Your task to perform on an android device: What's on my calendar tomorrow? Image 0: 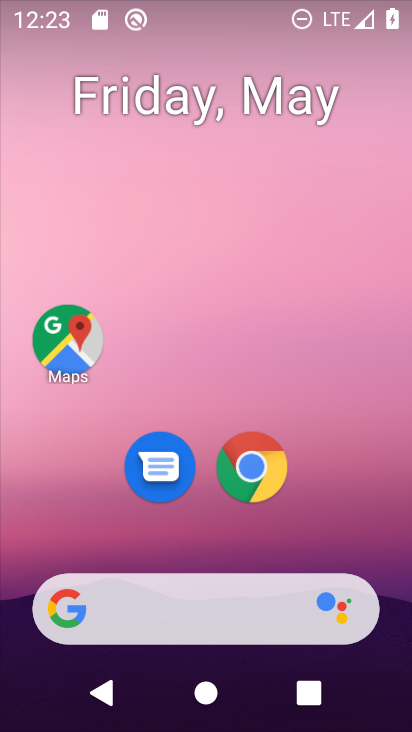
Step 0: drag from (183, 595) to (228, 0)
Your task to perform on an android device: What's on my calendar tomorrow? Image 1: 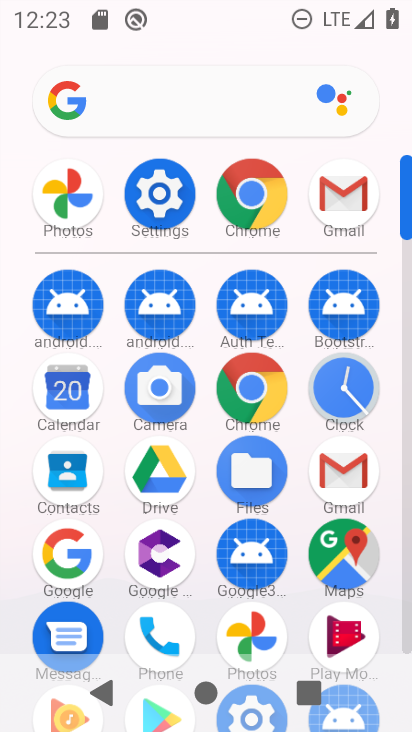
Step 1: click (70, 407)
Your task to perform on an android device: What's on my calendar tomorrow? Image 2: 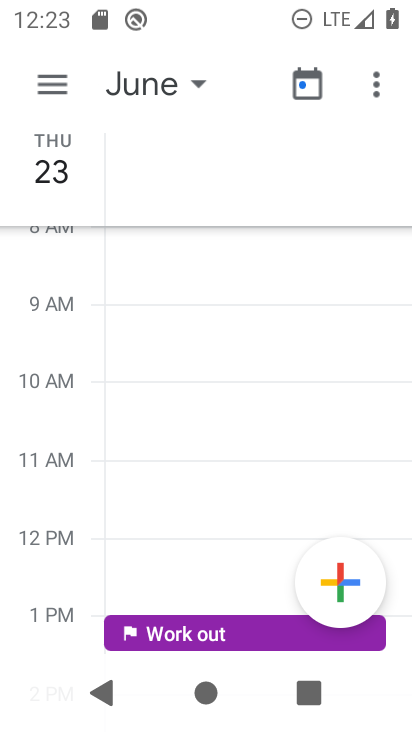
Step 2: click (76, 386)
Your task to perform on an android device: What's on my calendar tomorrow? Image 3: 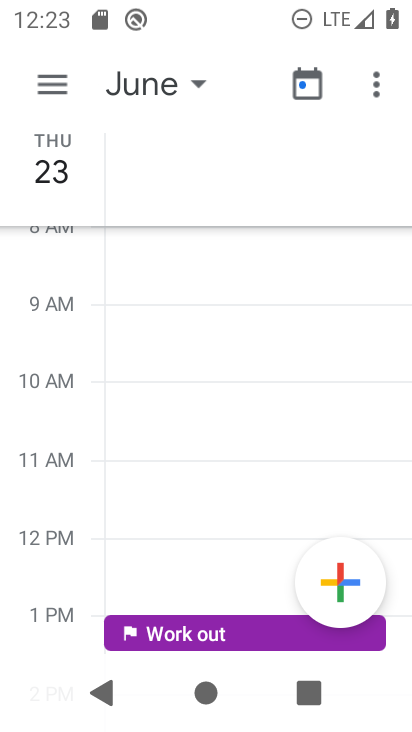
Step 3: click (201, 85)
Your task to perform on an android device: What's on my calendar tomorrow? Image 4: 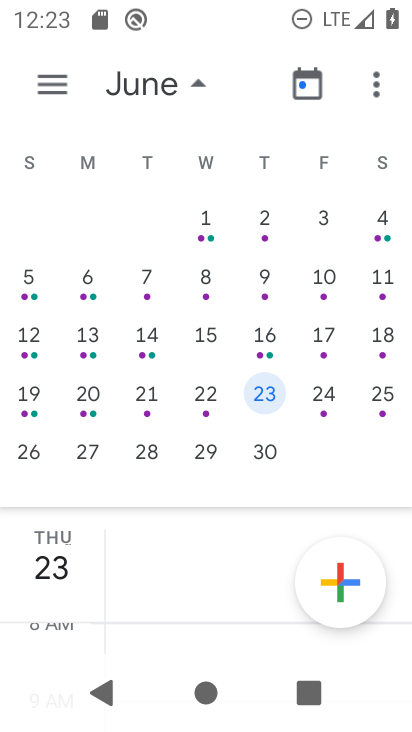
Step 4: drag from (80, 279) to (401, 288)
Your task to perform on an android device: What's on my calendar tomorrow? Image 5: 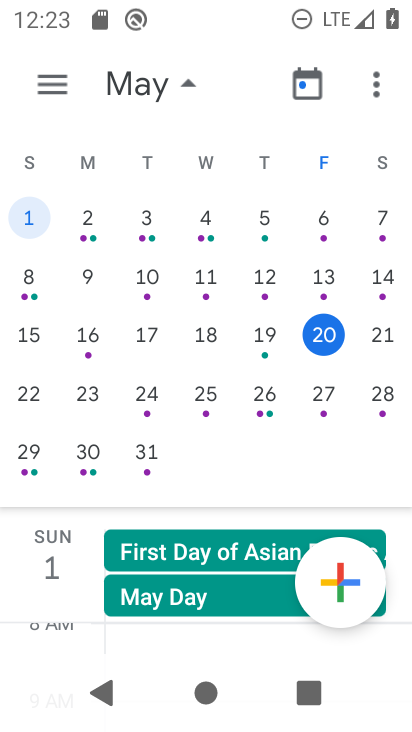
Step 5: click (329, 343)
Your task to perform on an android device: What's on my calendar tomorrow? Image 6: 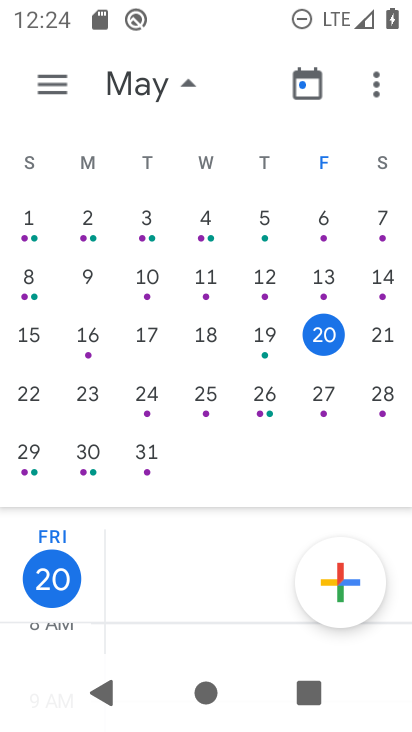
Step 6: task complete